Your task to perform on an android device: empty trash in the gmail app Image 0: 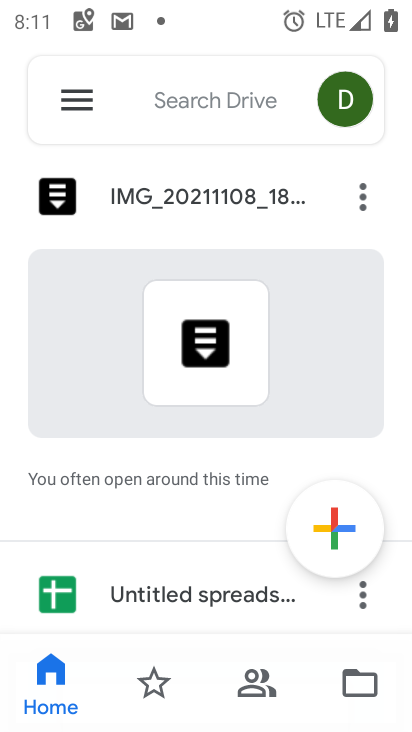
Step 0: press home button
Your task to perform on an android device: empty trash in the gmail app Image 1: 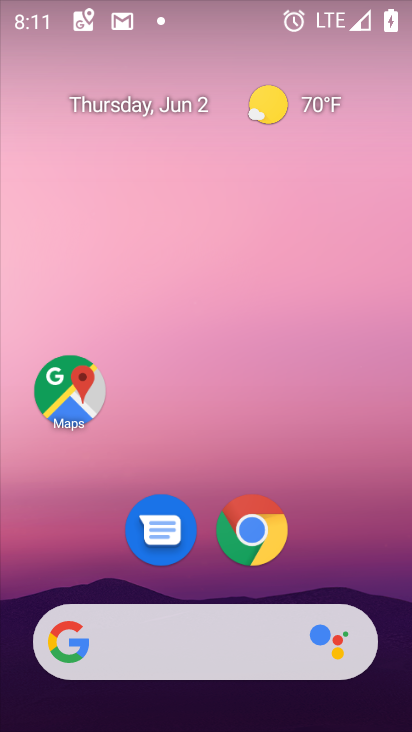
Step 1: drag from (224, 604) to (300, 315)
Your task to perform on an android device: empty trash in the gmail app Image 2: 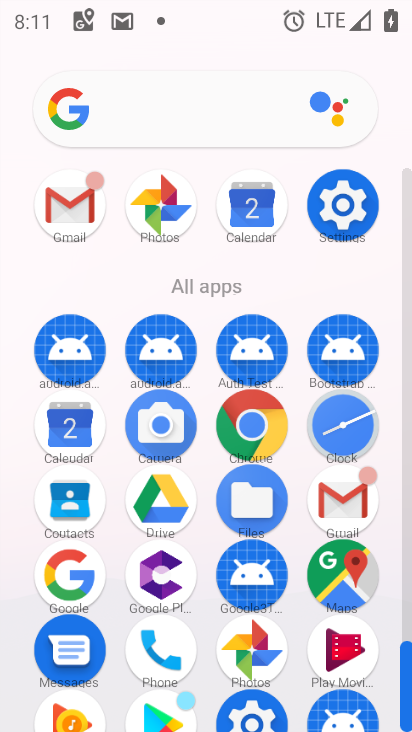
Step 2: click (63, 188)
Your task to perform on an android device: empty trash in the gmail app Image 3: 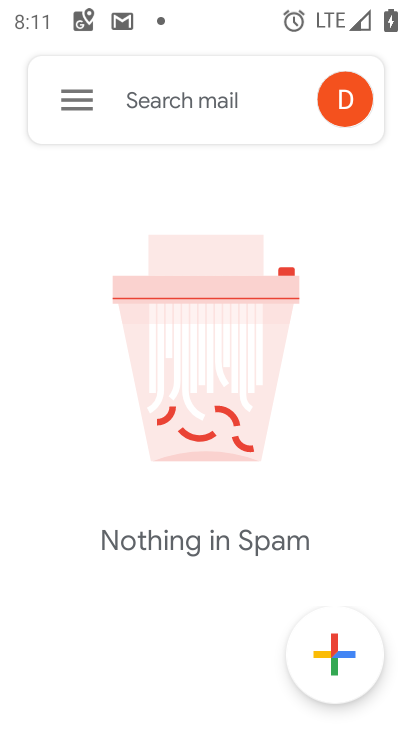
Step 3: click (63, 99)
Your task to perform on an android device: empty trash in the gmail app Image 4: 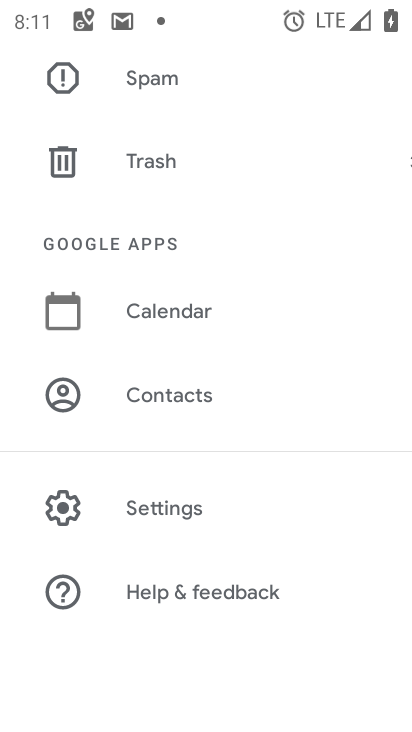
Step 4: click (141, 161)
Your task to perform on an android device: empty trash in the gmail app Image 5: 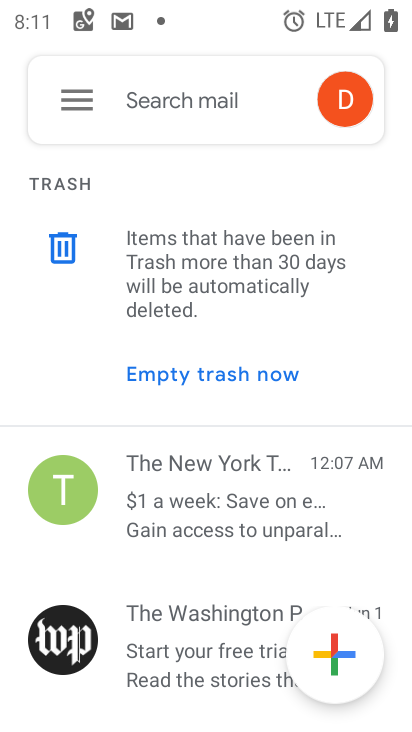
Step 5: task complete